Your task to perform on an android device: Do I have any events today? Image 0: 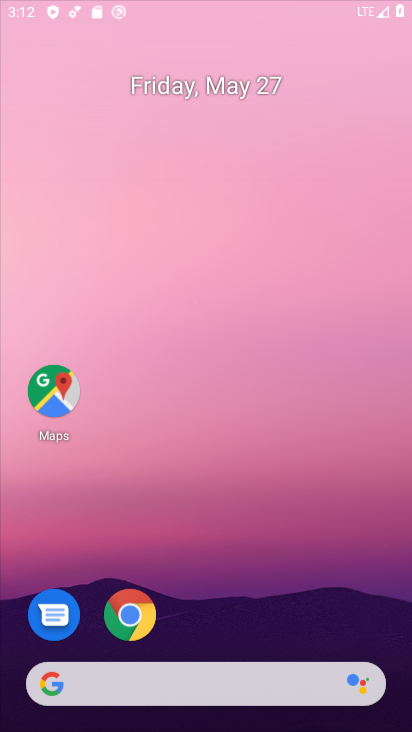
Step 0: click (215, 113)
Your task to perform on an android device: Do I have any events today? Image 1: 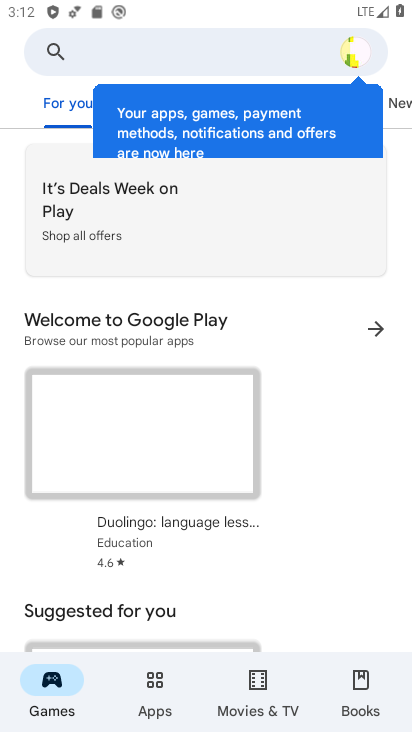
Step 1: press home button
Your task to perform on an android device: Do I have any events today? Image 2: 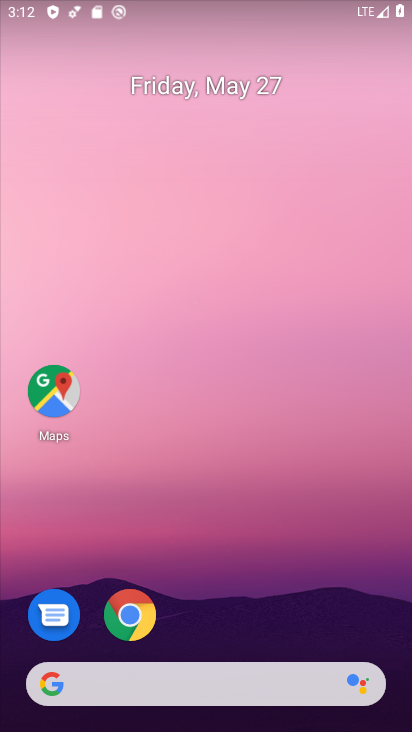
Step 2: drag from (235, 651) to (236, 234)
Your task to perform on an android device: Do I have any events today? Image 3: 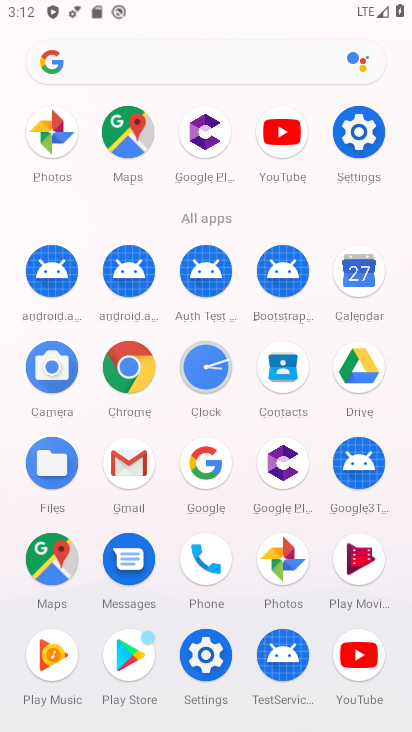
Step 3: click (364, 261)
Your task to perform on an android device: Do I have any events today? Image 4: 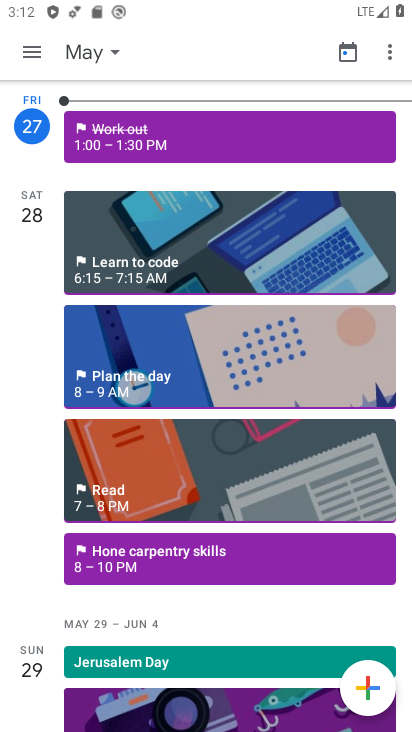
Step 4: task complete